Your task to perform on an android device: toggle notification dots Image 0: 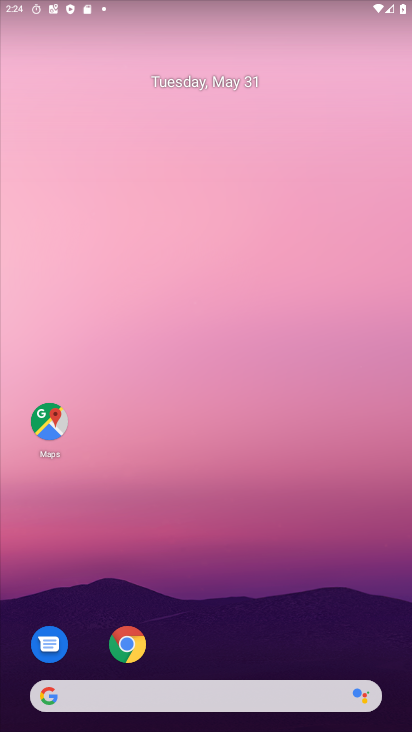
Step 0: drag from (398, 681) to (398, 75)
Your task to perform on an android device: toggle notification dots Image 1: 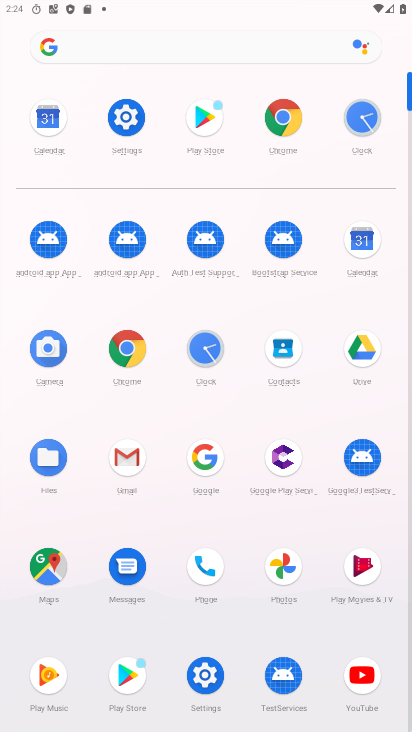
Step 1: click (136, 116)
Your task to perform on an android device: toggle notification dots Image 2: 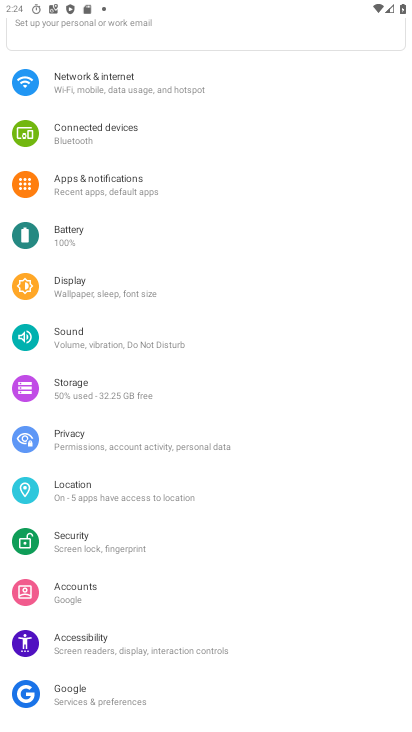
Step 2: click (83, 186)
Your task to perform on an android device: toggle notification dots Image 3: 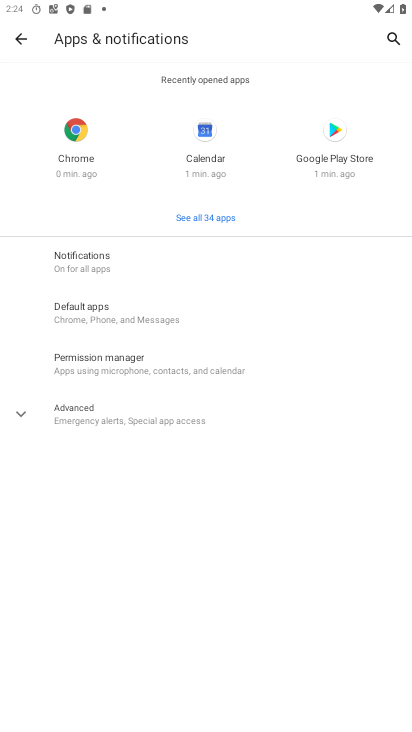
Step 3: click (78, 260)
Your task to perform on an android device: toggle notification dots Image 4: 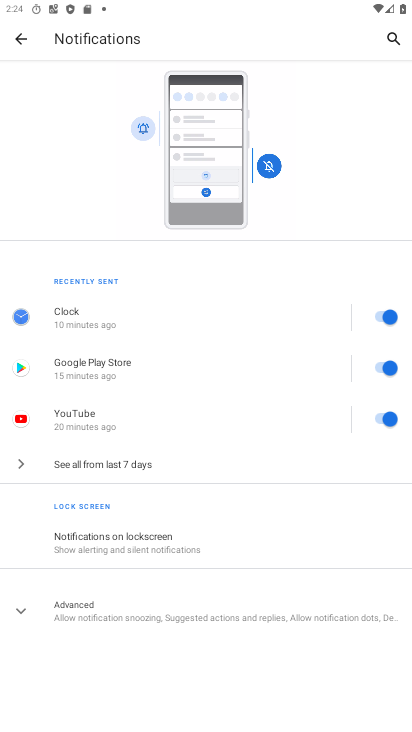
Step 4: click (26, 611)
Your task to perform on an android device: toggle notification dots Image 5: 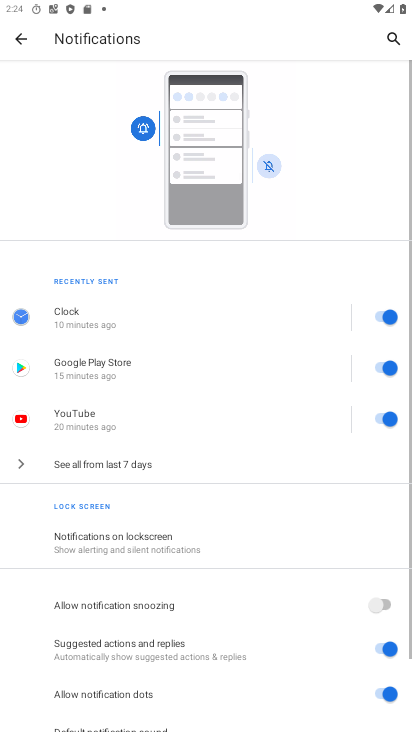
Step 5: drag from (235, 572) to (256, 331)
Your task to perform on an android device: toggle notification dots Image 6: 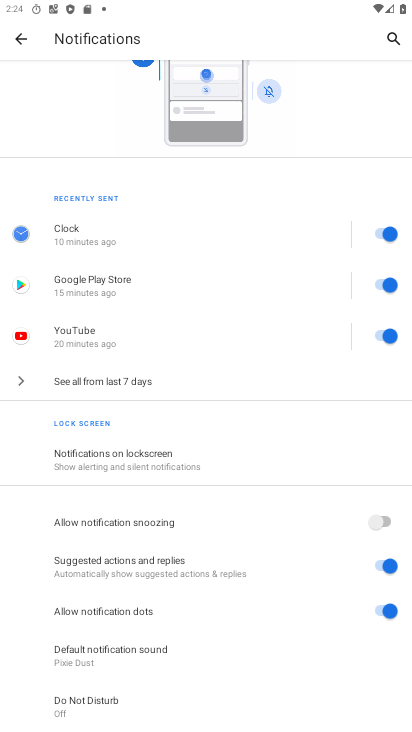
Step 6: click (383, 608)
Your task to perform on an android device: toggle notification dots Image 7: 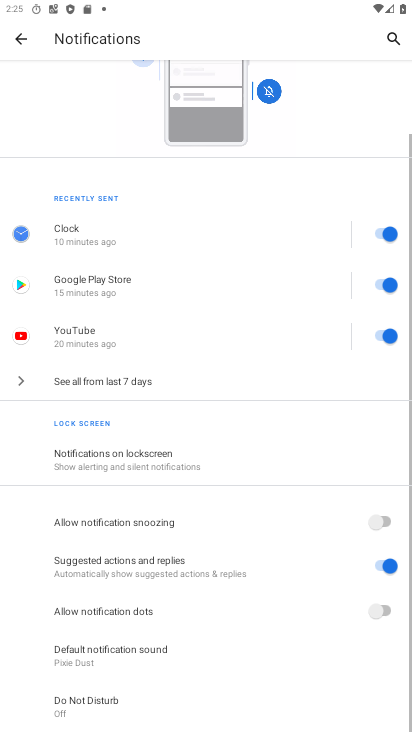
Step 7: task complete